Your task to perform on an android device: turn on airplane mode Image 0: 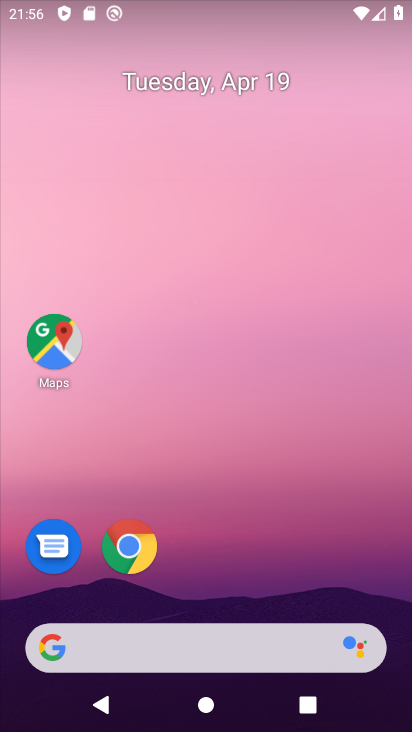
Step 0: drag from (221, 611) to (223, 32)
Your task to perform on an android device: turn on airplane mode Image 1: 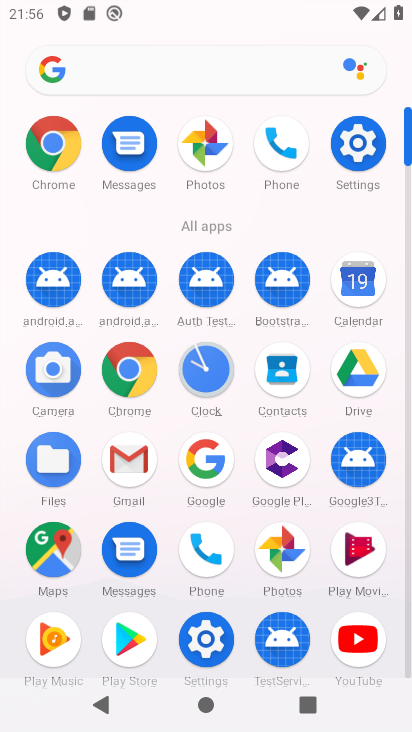
Step 1: click (341, 145)
Your task to perform on an android device: turn on airplane mode Image 2: 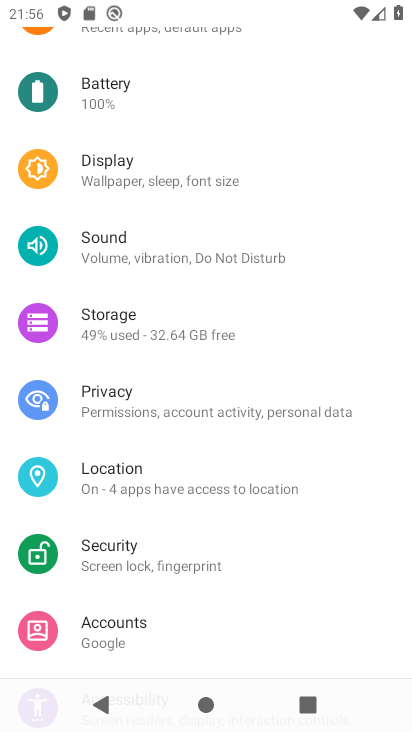
Step 2: drag from (222, 160) to (147, 578)
Your task to perform on an android device: turn on airplane mode Image 3: 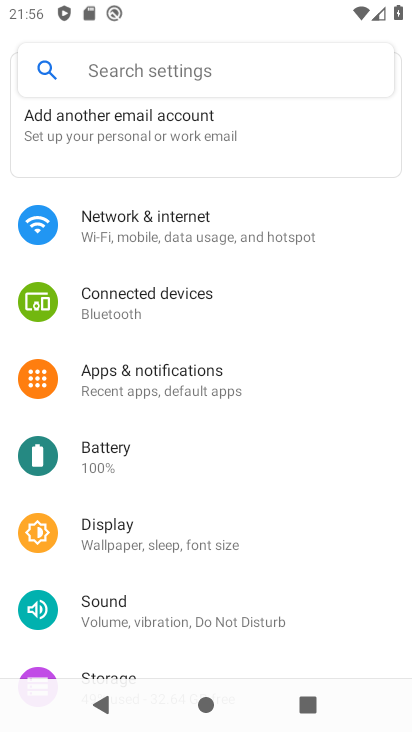
Step 3: click (193, 257)
Your task to perform on an android device: turn on airplane mode Image 4: 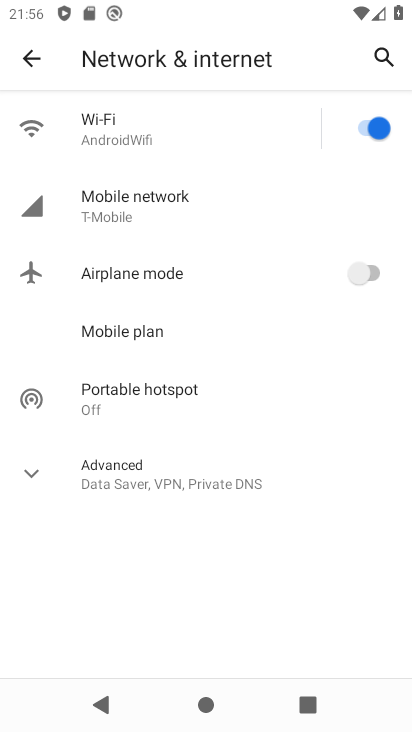
Step 4: click (357, 268)
Your task to perform on an android device: turn on airplane mode Image 5: 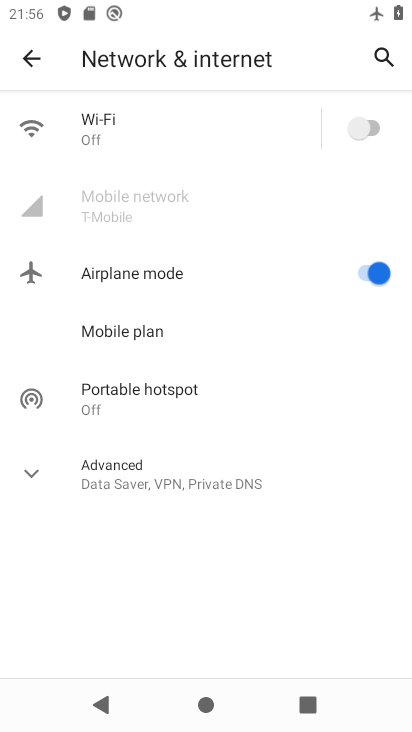
Step 5: task complete